Your task to perform on an android device: Open Youtube and go to the subscriptions tab Image 0: 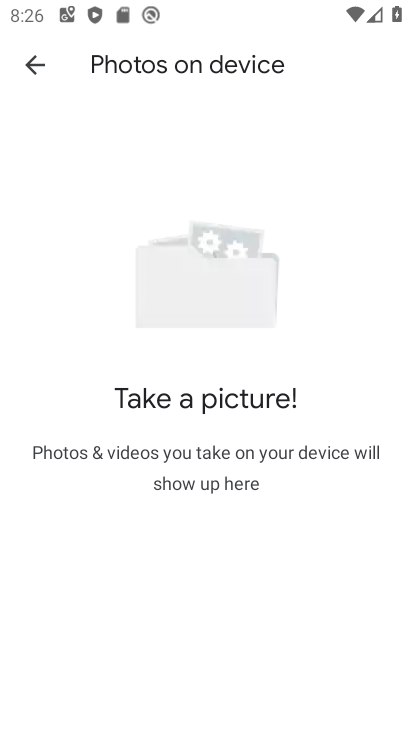
Step 0: press home button
Your task to perform on an android device: Open Youtube and go to the subscriptions tab Image 1: 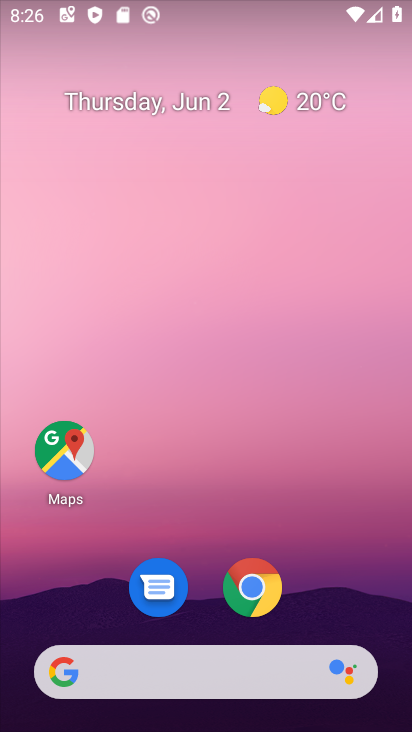
Step 1: drag from (124, 443) to (146, 116)
Your task to perform on an android device: Open Youtube and go to the subscriptions tab Image 2: 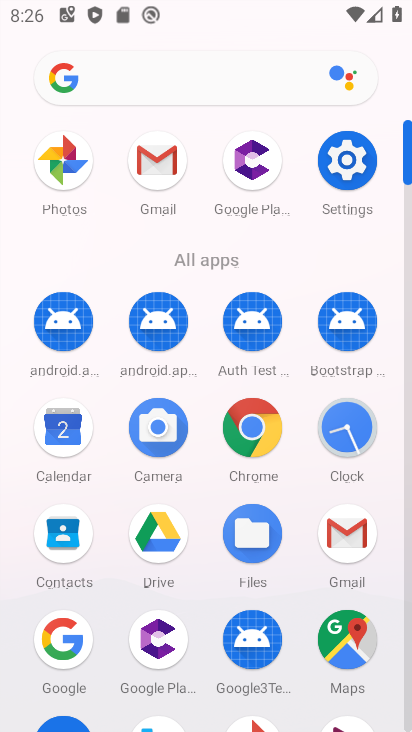
Step 2: drag from (184, 591) to (217, 189)
Your task to perform on an android device: Open Youtube and go to the subscriptions tab Image 3: 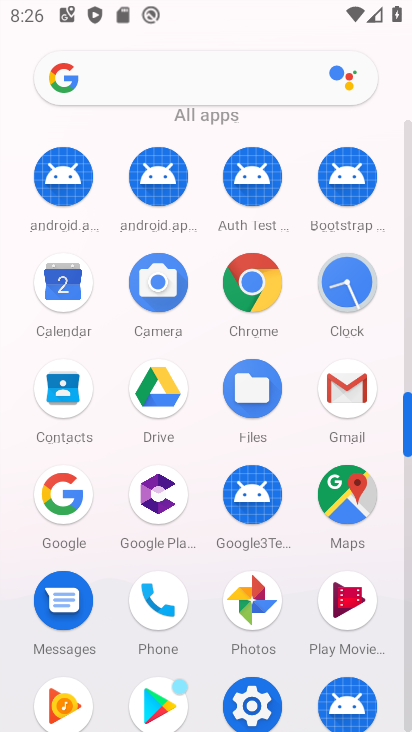
Step 3: drag from (108, 646) to (137, 223)
Your task to perform on an android device: Open Youtube and go to the subscriptions tab Image 4: 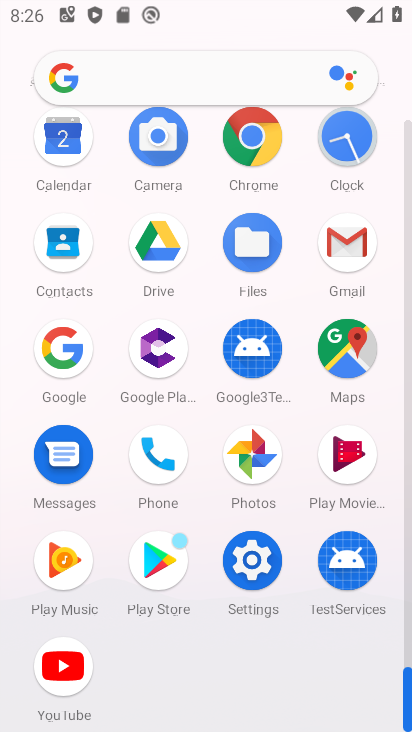
Step 4: click (80, 695)
Your task to perform on an android device: Open Youtube and go to the subscriptions tab Image 5: 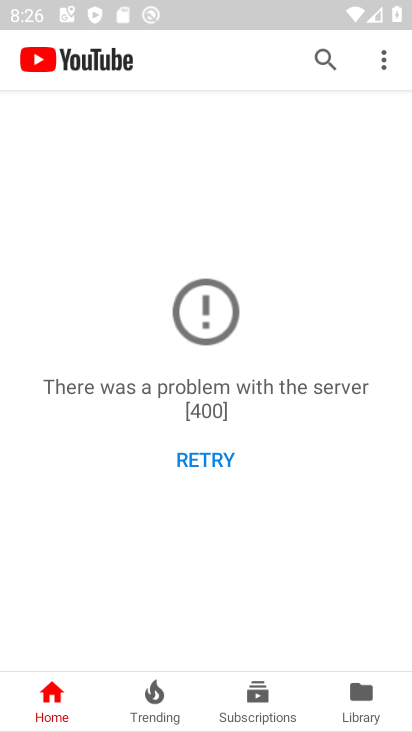
Step 5: click (261, 703)
Your task to perform on an android device: Open Youtube and go to the subscriptions tab Image 6: 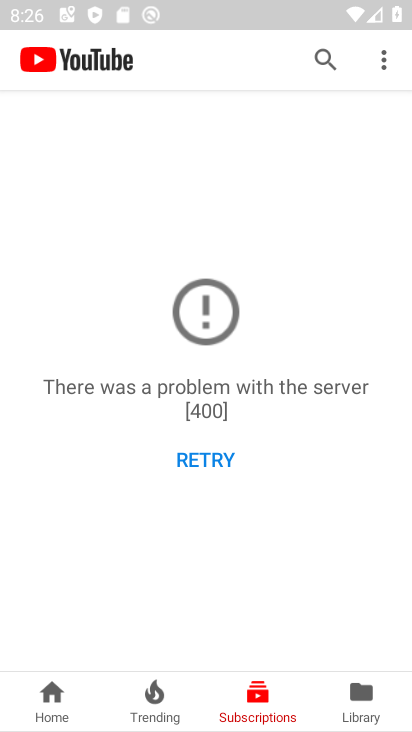
Step 6: task complete